Your task to perform on an android device: Go to Android settings Image 0: 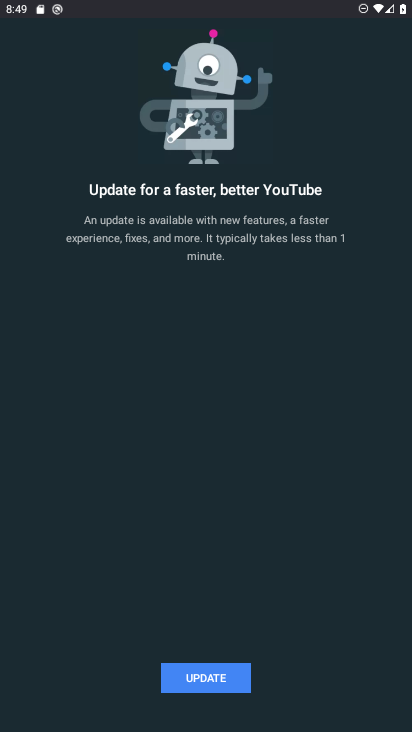
Step 0: press home button
Your task to perform on an android device: Go to Android settings Image 1: 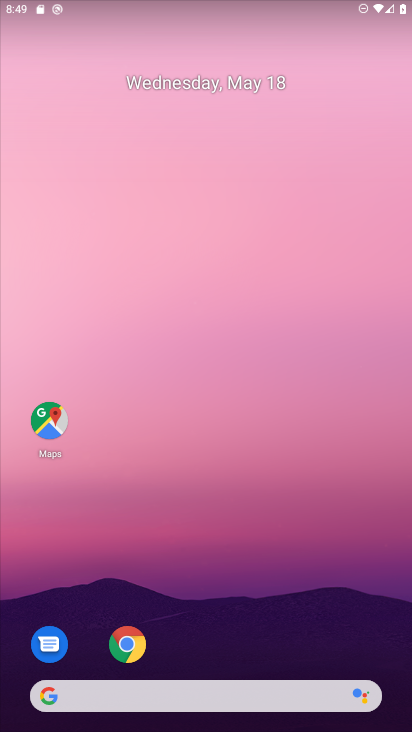
Step 1: drag from (209, 601) to (268, 52)
Your task to perform on an android device: Go to Android settings Image 2: 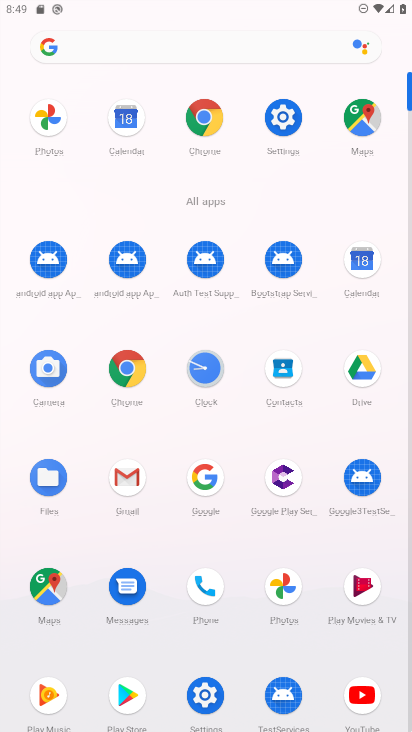
Step 2: click (278, 114)
Your task to perform on an android device: Go to Android settings Image 3: 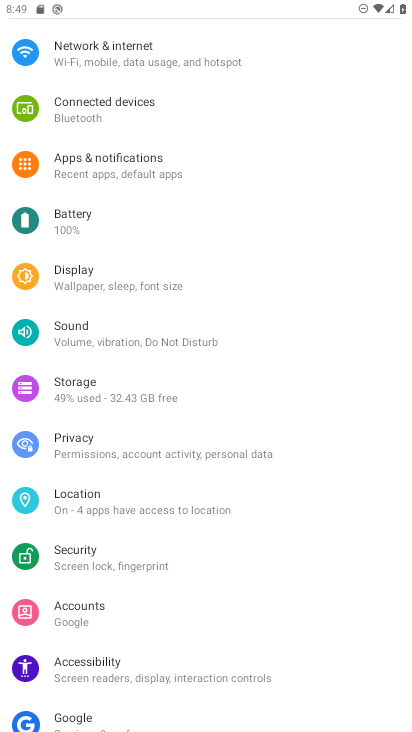
Step 3: task complete